Your task to perform on an android device: see tabs open on other devices in the chrome app Image 0: 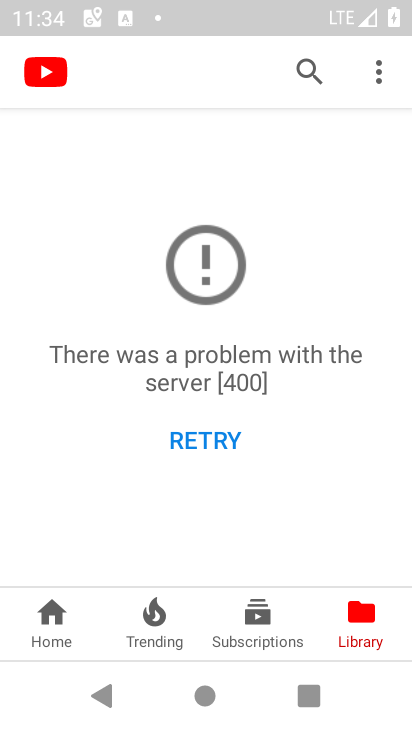
Step 0: press home button
Your task to perform on an android device: see tabs open on other devices in the chrome app Image 1: 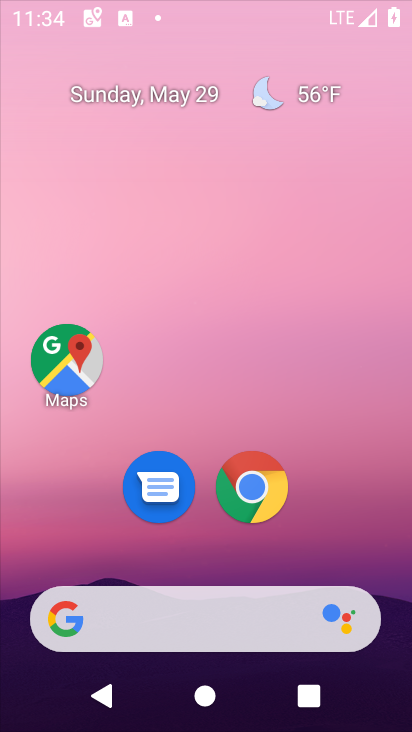
Step 1: drag from (201, 600) to (232, 97)
Your task to perform on an android device: see tabs open on other devices in the chrome app Image 2: 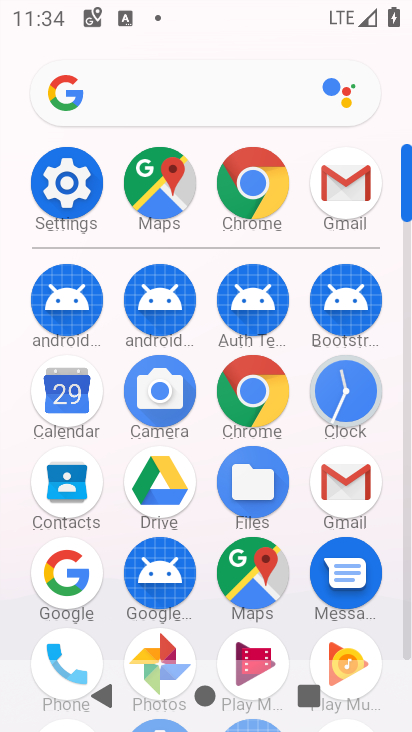
Step 2: click (252, 405)
Your task to perform on an android device: see tabs open on other devices in the chrome app Image 3: 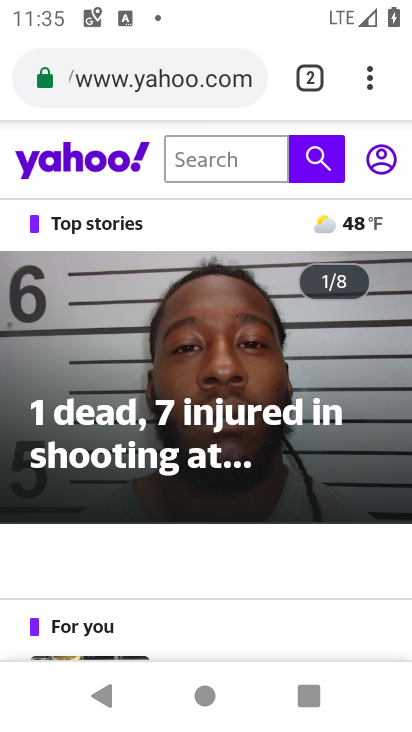
Step 3: task complete